Your task to perform on an android device: turn on notifications settings in the gmail app Image 0: 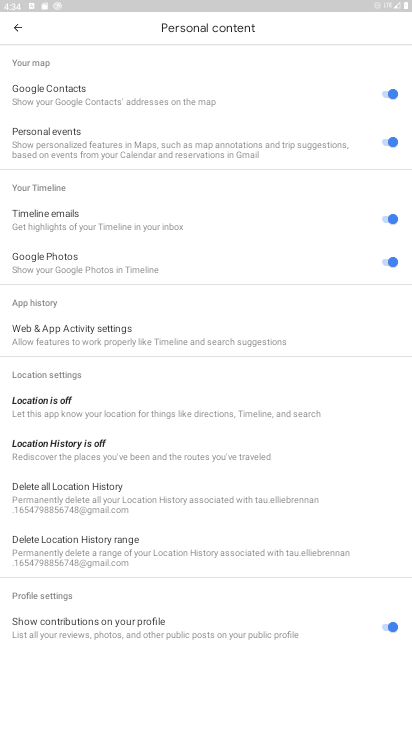
Step 0: press home button
Your task to perform on an android device: turn on notifications settings in the gmail app Image 1: 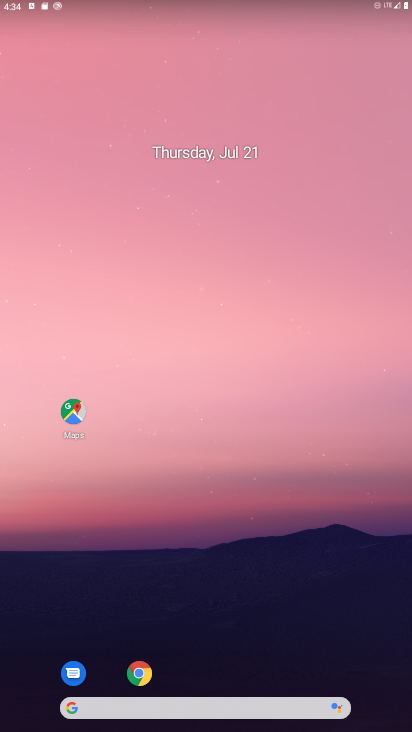
Step 1: drag from (369, 672) to (324, 139)
Your task to perform on an android device: turn on notifications settings in the gmail app Image 2: 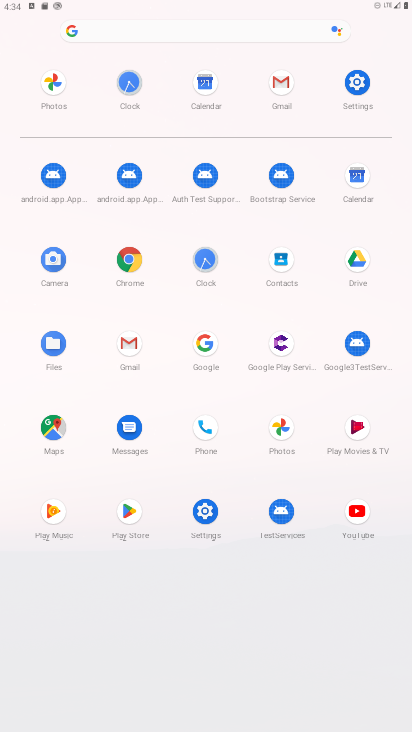
Step 2: click (130, 343)
Your task to perform on an android device: turn on notifications settings in the gmail app Image 3: 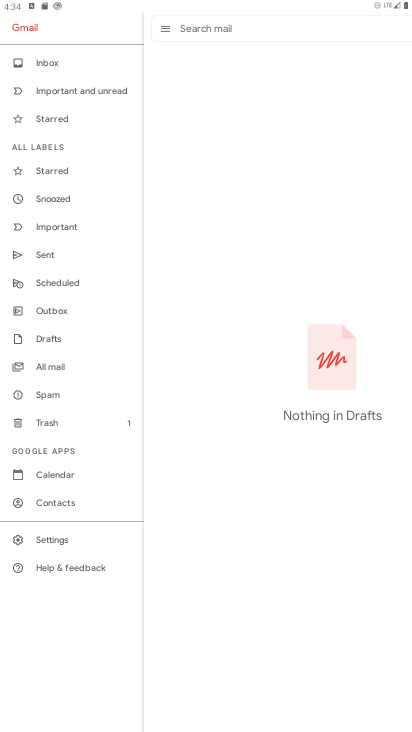
Step 3: click (47, 537)
Your task to perform on an android device: turn on notifications settings in the gmail app Image 4: 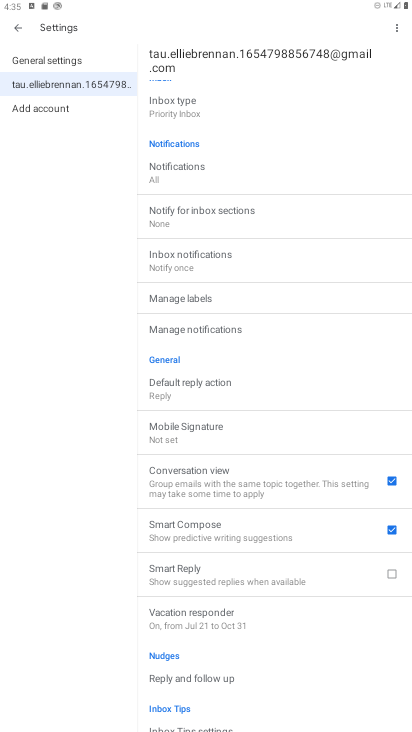
Step 4: click (189, 327)
Your task to perform on an android device: turn on notifications settings in the gmail app Image 5: 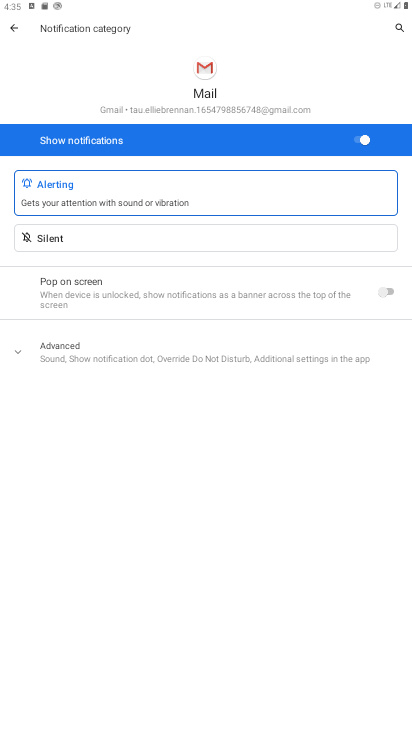
Step 5: task complete